Your task to perform on an android device: toggle data saver in the chrome app Image 0: 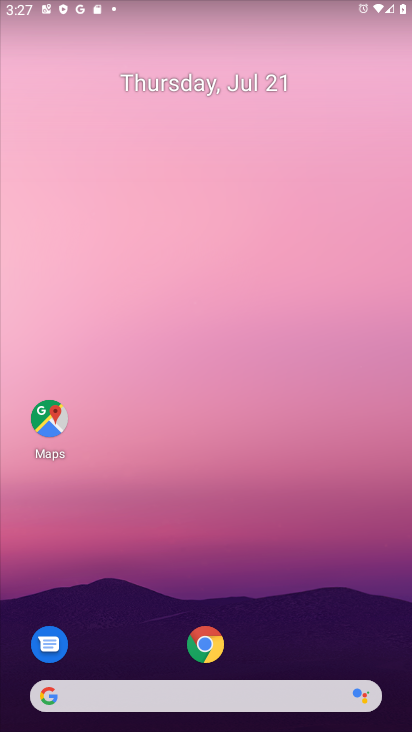
Step 0: press home button
Your task to perform on an android device: toggle data saver in the chrome app Image 1: 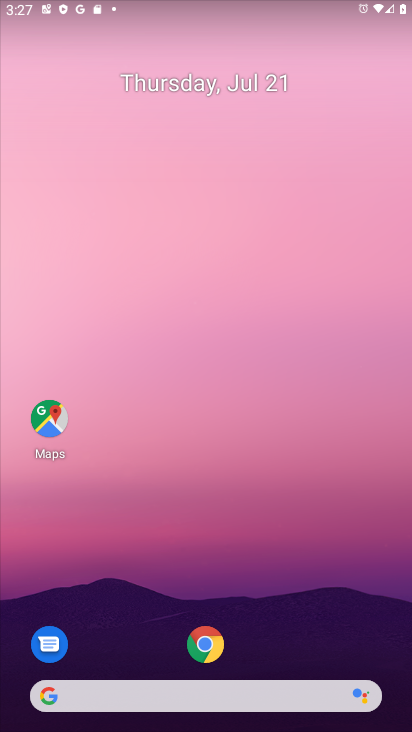
Step 1: click (207, 650)
Your task to perform on an android device: toggle data saver in the chrome app Image 2: 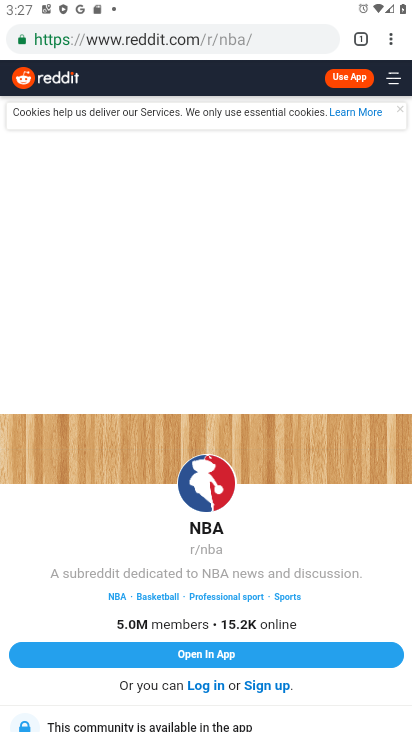
Step 2: drag from (392, 39) to (254, 514)
Your task to perform on an android device: toggle data saver in the chrome app Image 3: 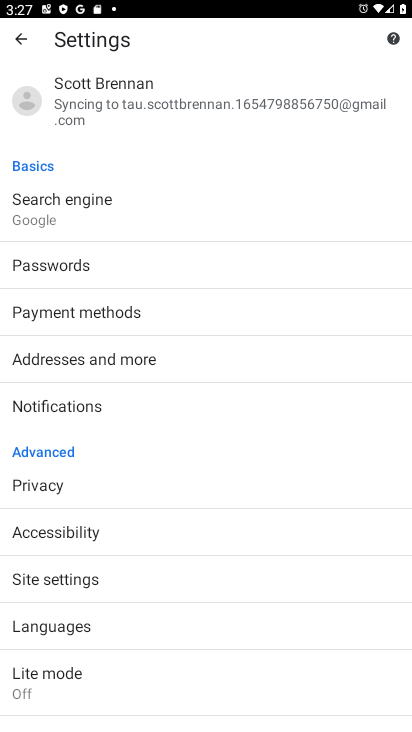
Step 3: click (28, 692)
Your task to perform on an android device: toggle data saver in the chrome app Image 4: 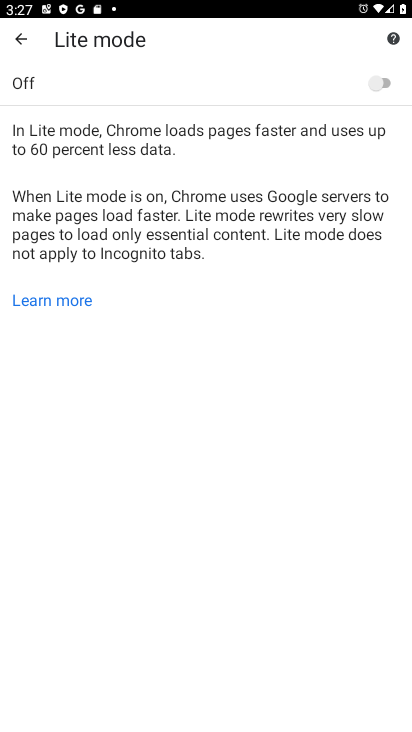
Step 4: click (370, 85)
Your task to perform on an android device: toggle data saver in the chrome app Image 5: 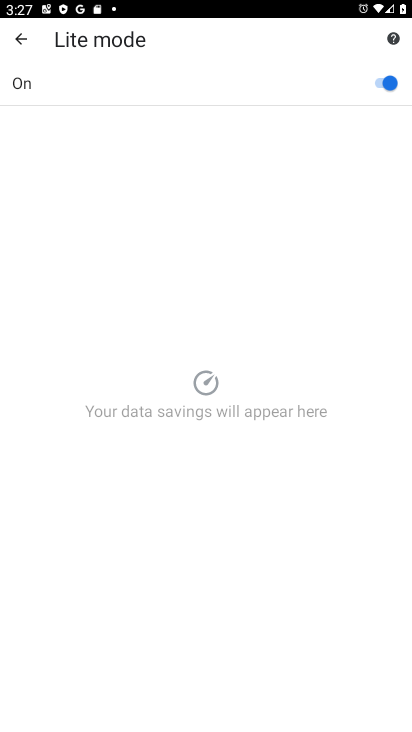
Step 5: task complete